Your task to perform on an android device: empty trash in the gmail app Image 0: 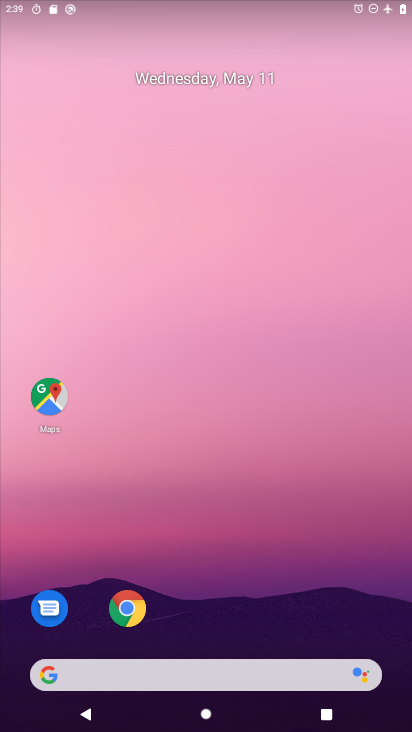
Step 0: drag from (249, 649) to (400, 178)
Your task to perform on an android device: empty trash in the gmail app Image 1: 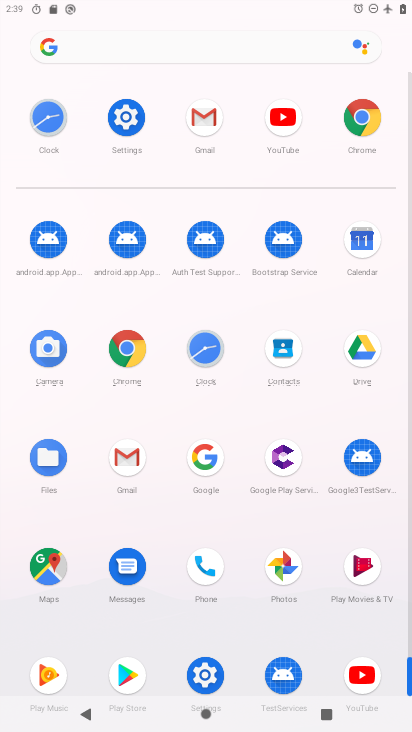
Step 1: drag from (245, 510) to (335, 91)
Your task to perform on an android device: empty trash in the gmail app Image 2: 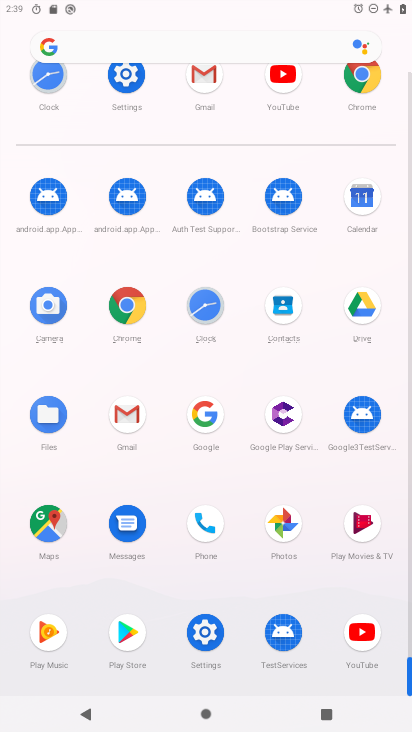
Step 2: click (138, 424)
Your task to perform on an android device: empty trash in the gmail app Image 3: 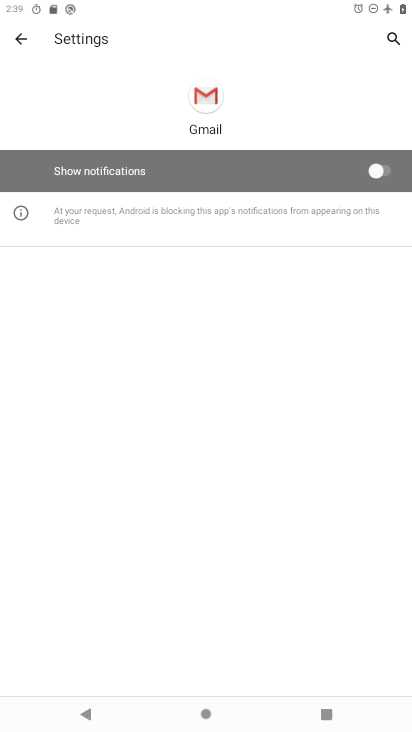
Step 3: click (25, 31)
Your task to perform on an android device: empty trash in the gmail app Image 4: 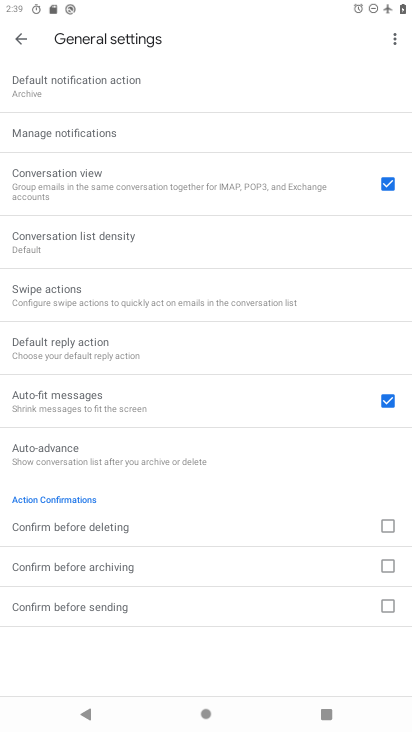
Step 4: click (19, 29)
Your task to perform on an android device: empty trash in the gmail app Image 5: 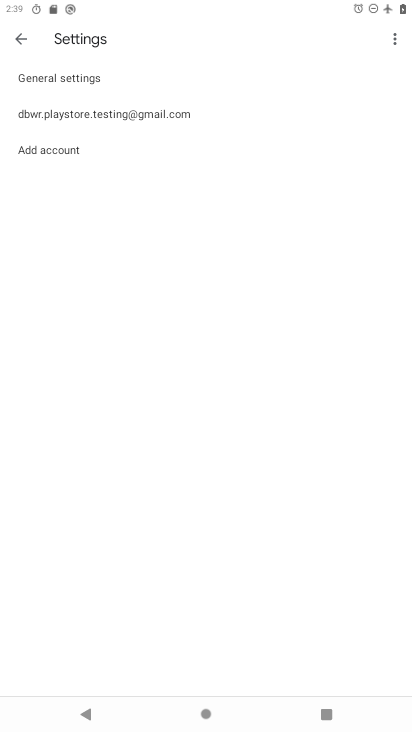
Step 5: click (14, 38)
Your task to perform on an android device: empty trash in the gmail app Image 6: 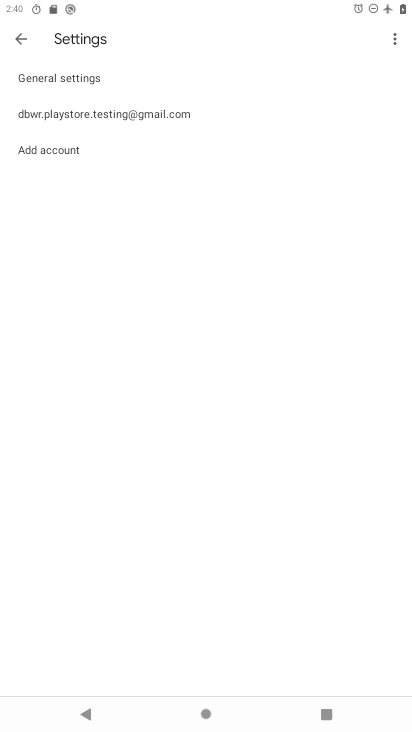
Step 6: click (17, 36)
Your task to perform on an android device: empty trash in the gmail app Image 7: 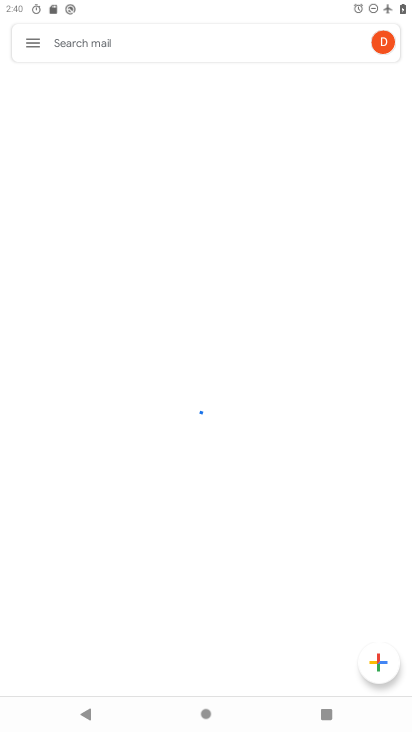
Step 7: click (36, 36)
Your task to perform on an android device: empty trash in the gmail app Image 8: 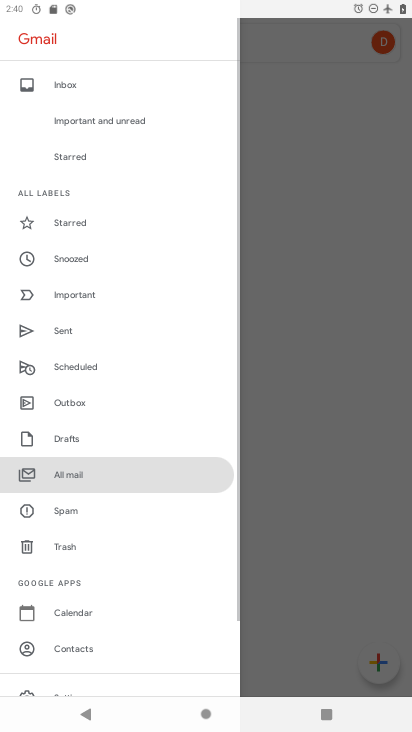
Step 8: drag from (62, 618) to (108, 383)
Your task to perform on an android device: empty trash in the gmail app Image 9: 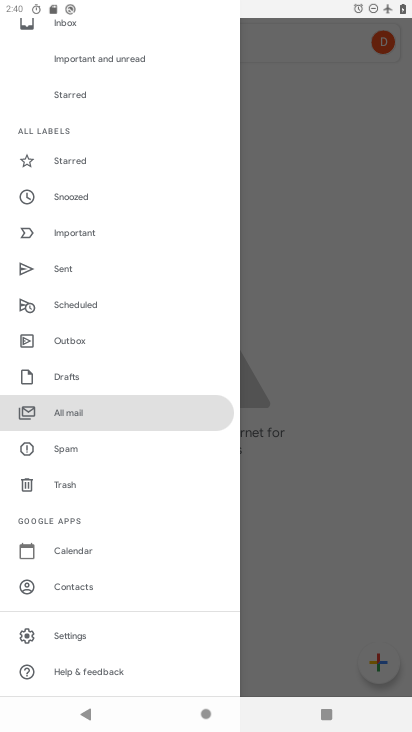
Step 9: click (98, 480)
Your task to perform on an android device: empty trash in the gmail app Image 10: 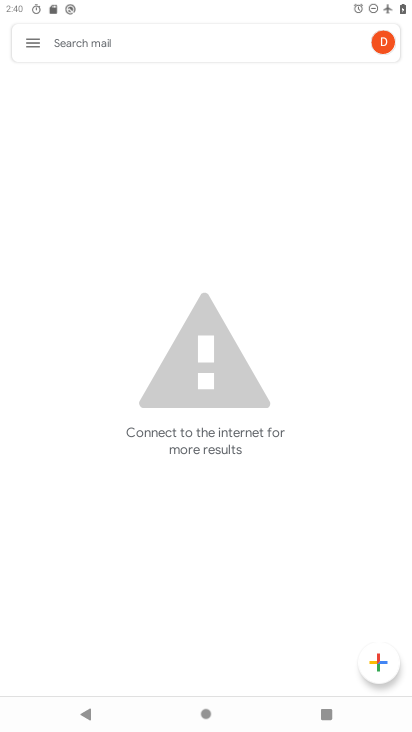
Step 10: task complete